Your task to perform on an android device: Open Maps and search for coffee Image 0: 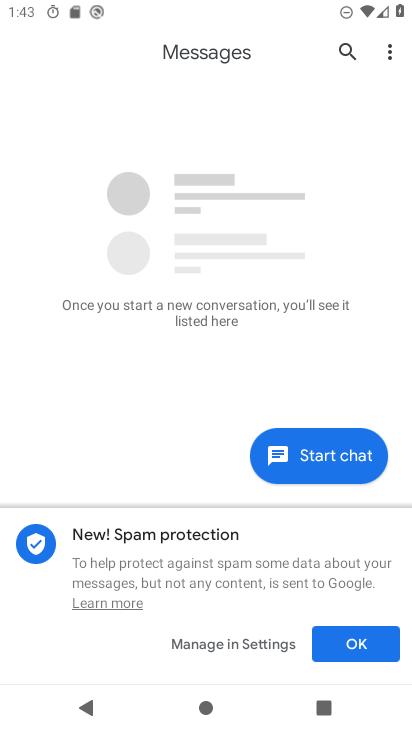
Step 0: press home button
Your task to perform on an android device: Open Maps and search for coffee Image 1: 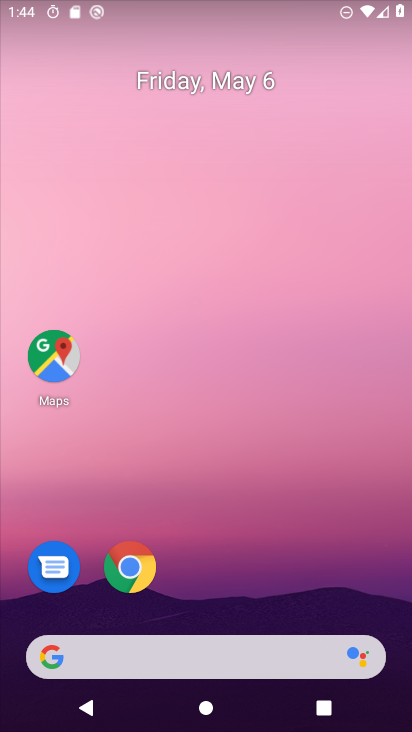
Step 1: click (49, 355)
Your task to perform on an android device: Open Maps and search for coffee Image 2: 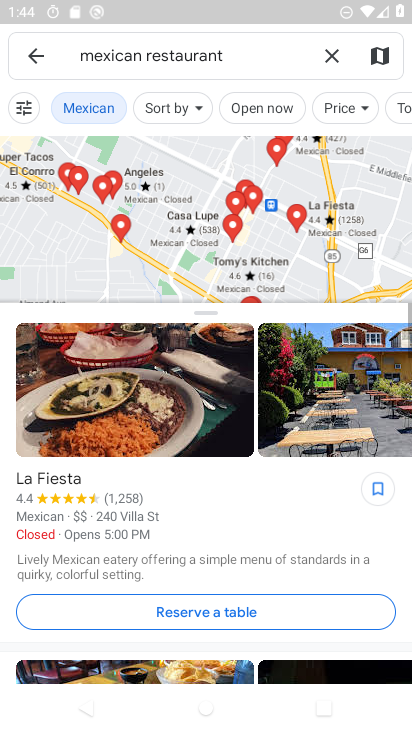
Step 2: click (325, 58)
Your task to perform on an android device: Open Maps and search for coffee Image 3: 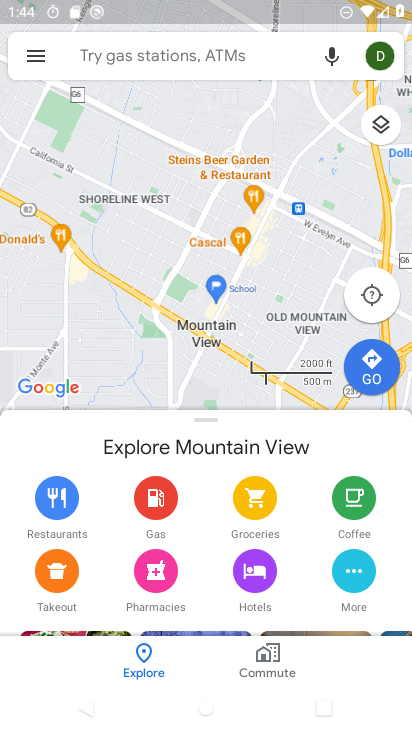
Step 3: click (98, 50)
Your task to perform on an android device: Open Maps and search for coffee Image 4: 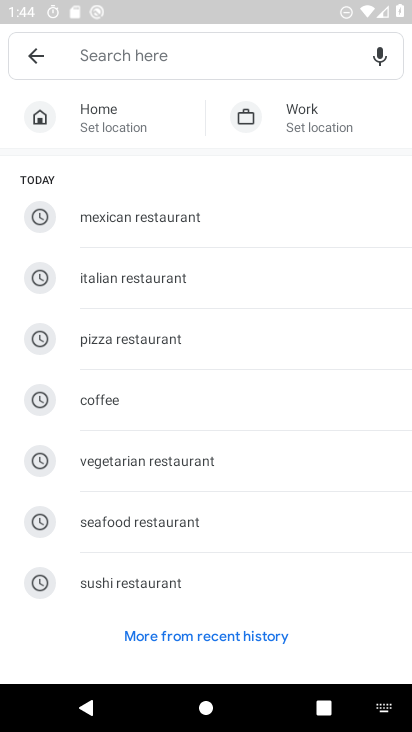
Step 4: type "coffee "
Your task to perform on an android device: Open Maps and search for coffee Image 5: 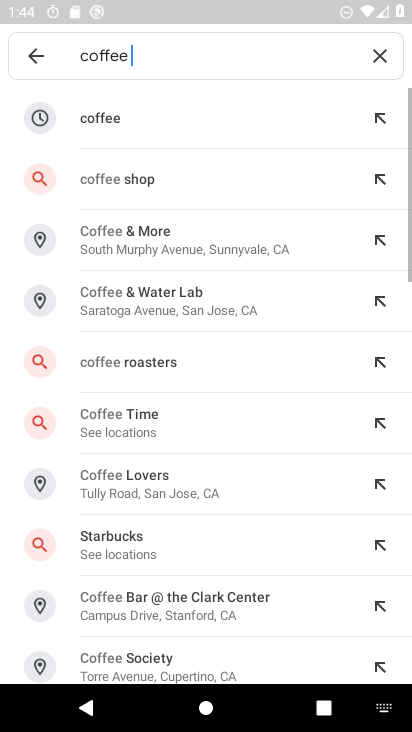
Step 5: click (96, 117)
Your task to perform on an android device: Open Maps and search for coffee Image 6: 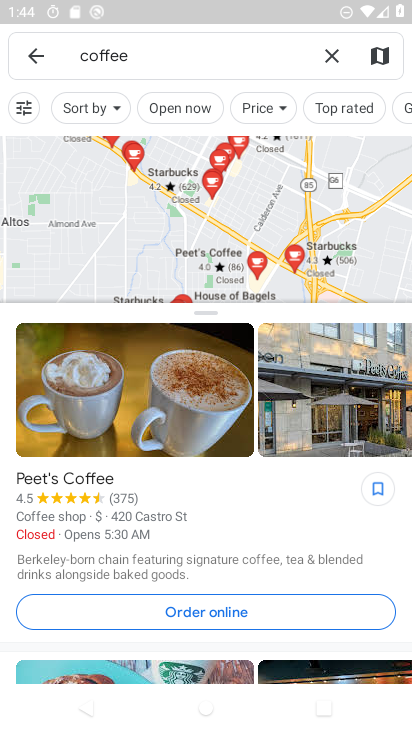
Step 6: task complete